Your task to perform on an android device: change the clock display to show seconds Image 0: 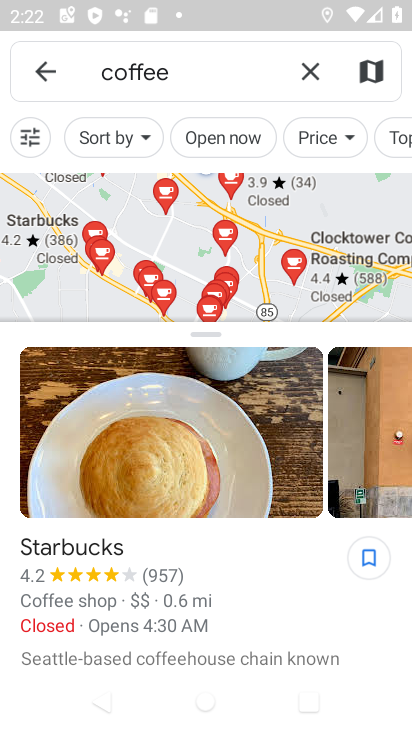
Step 0: press home button
Your task to perform on an android device: change the clock display to show seconds Image 1: 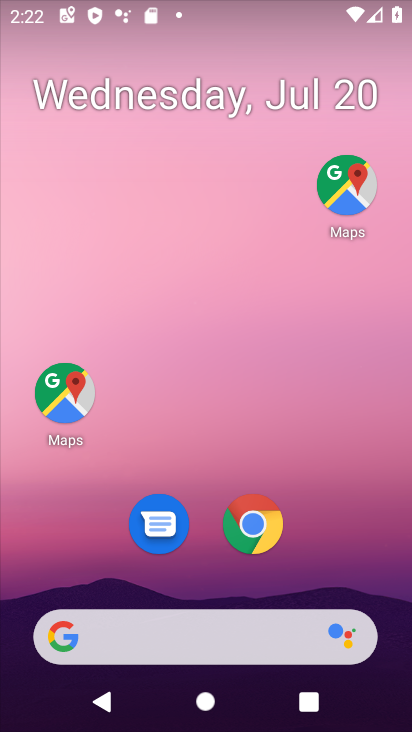
Step 1: drag from (295, 509) to (248, 105)
Your task to perform on an android device: change the clock display to show seconds Image 2: 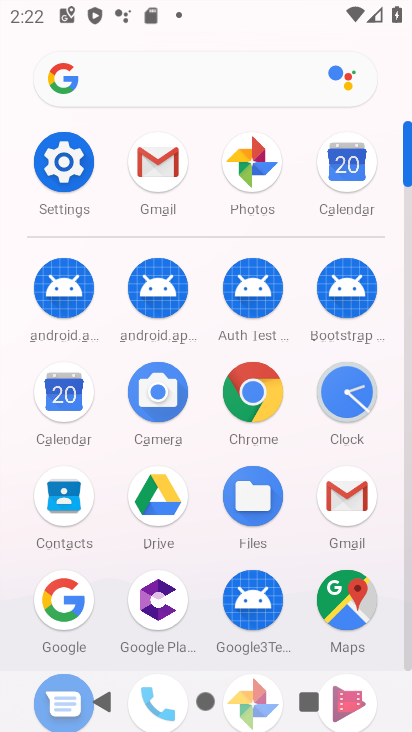
Step 2: click (347, 393)
Your task to perform on an android device: change the clock display to show seconds Image 3: 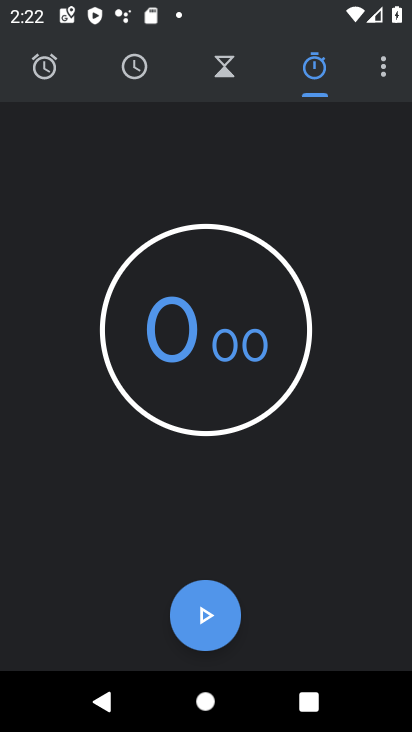
Step 3: click (379, 68)
Your task to perform on an android device: change the clock display to show seconds Image 4: 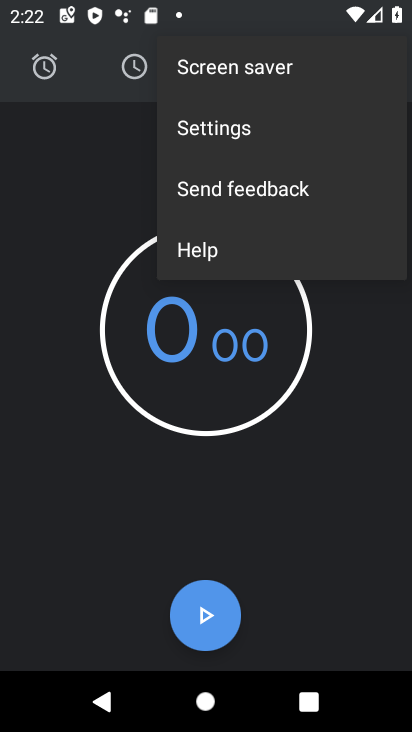
Step 4: click (240, 131)
Your task to perform on an android device: change the clock display to show seconds Image 5: 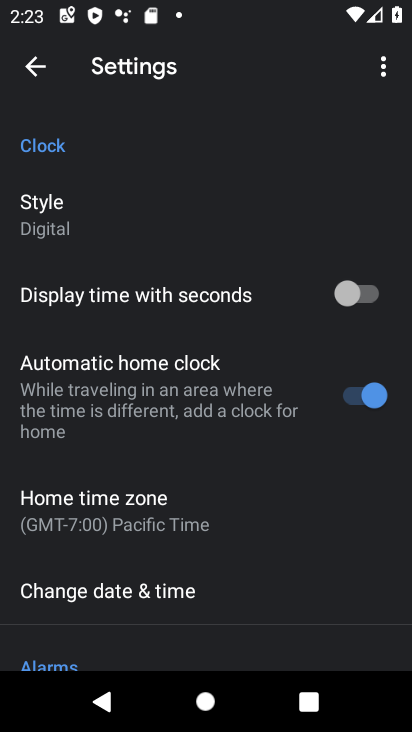
Step 5: click (361, 292)
Your task to perform on an android device: change the clock display to show seconds Image 6: 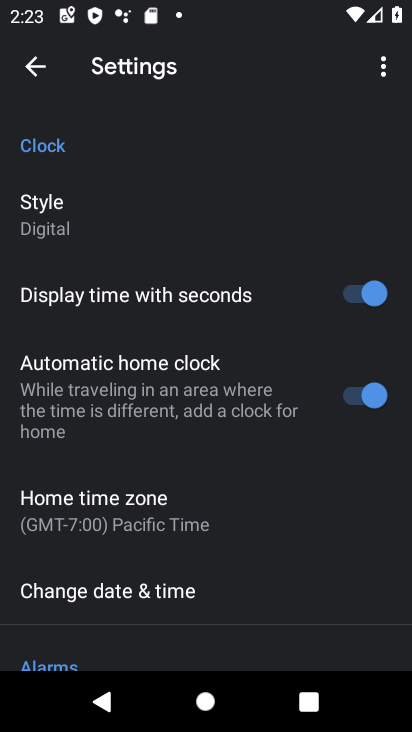
Step 6: click (36, 74)
Your task to perform on an android device: change the clock display to show seconds Image 7: 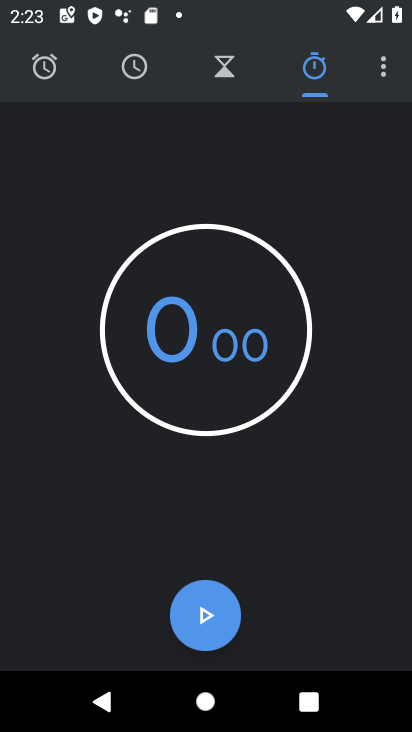
Step 7: click (138, 74)
Your task to perform on an android device: change the clock display to show seconds Image 8: 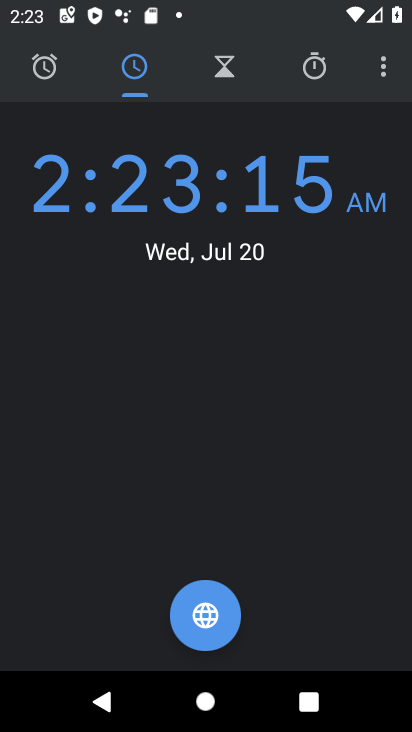
Step 8: task complete